Your task to perform on an android device: create a new album in the google photos Image 0: 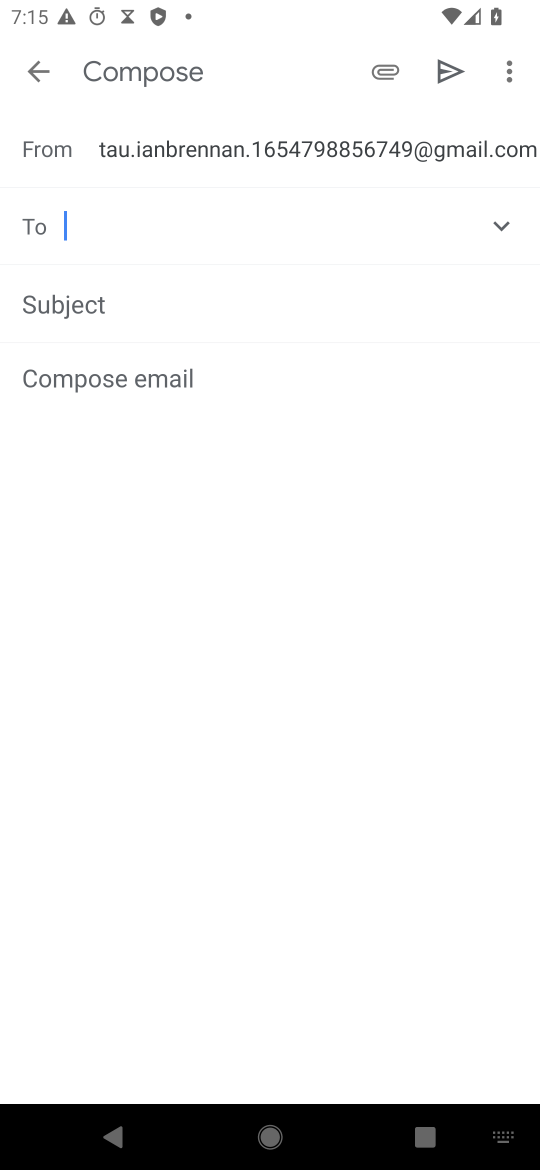
Step 0: press home button
Your task to perform on an android device: create a new album in the google photos Image 1: 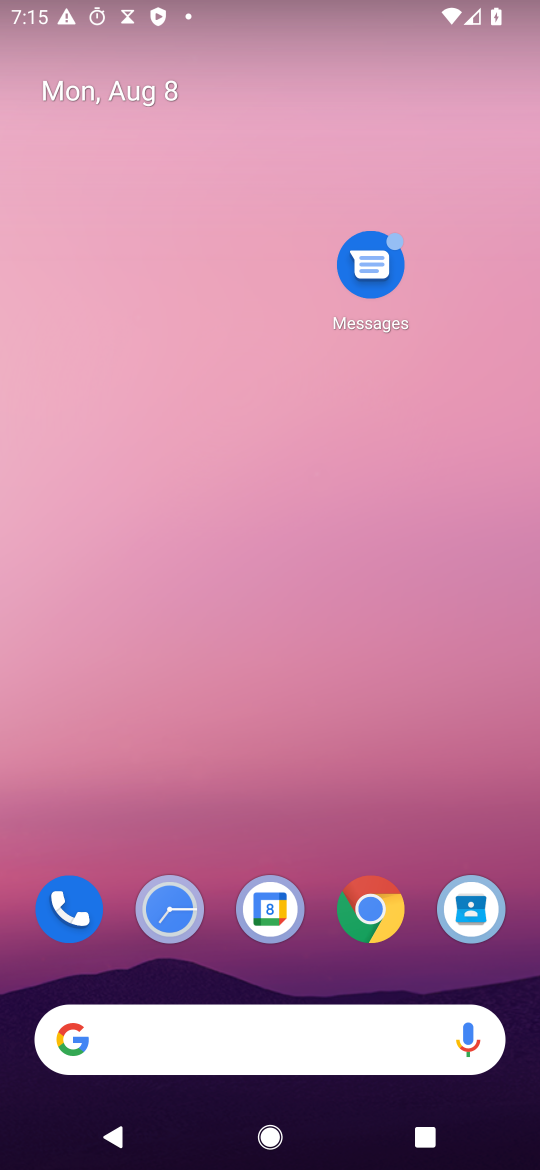
Step 1: drag from (222, 1057) to (472, 440)
Your task to perform on an android device: create a new album in the google photos Image 2: 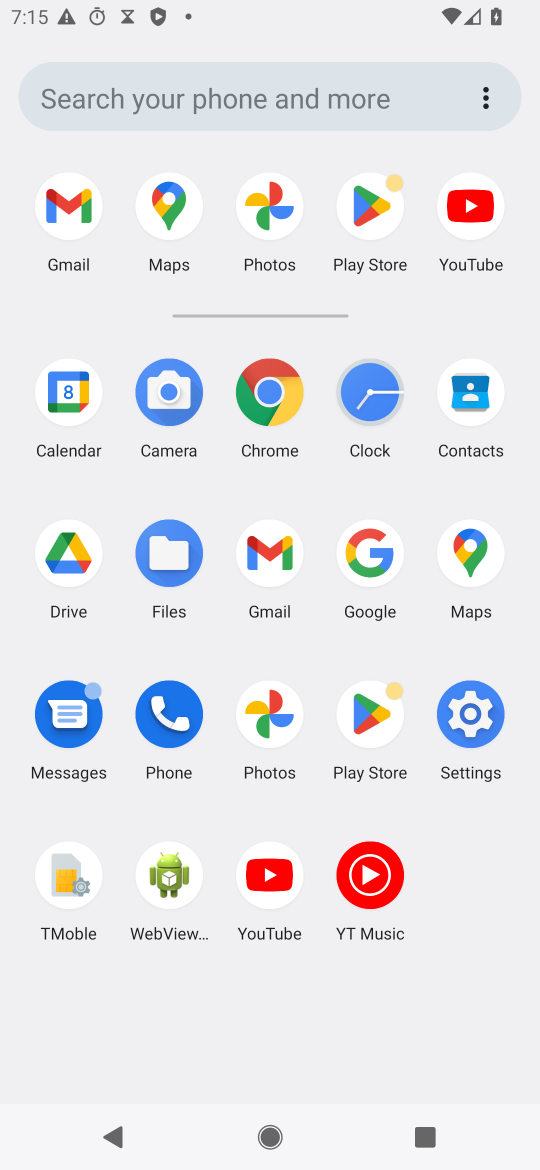
Step 2: click (265, 715)
Your task to perform on an android device: create a new album in the google photos Image 3: 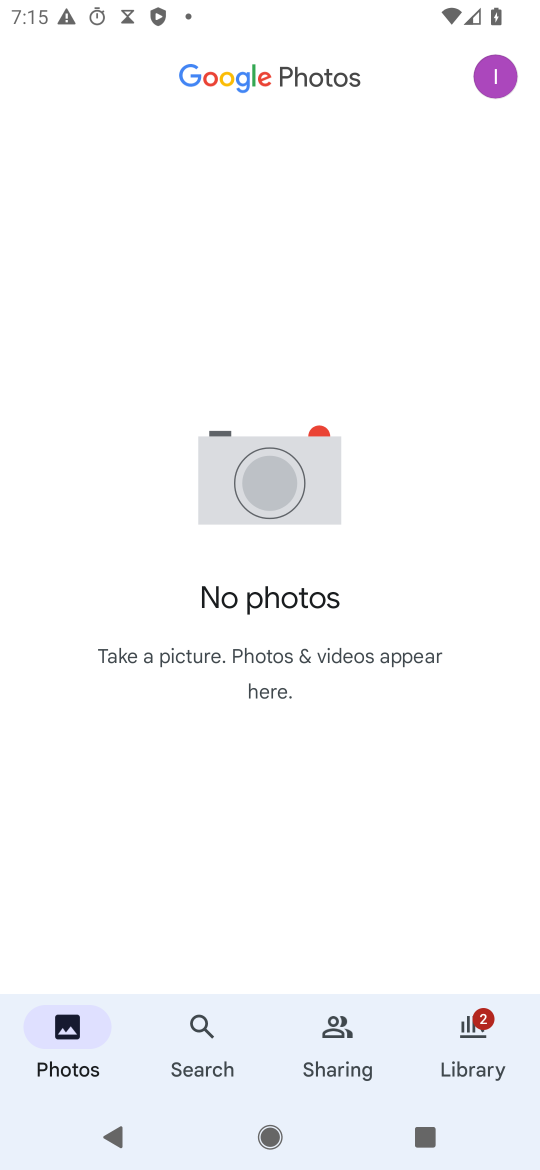
Step 3: click (471, 1055)
Your task to perform on an android device: create a new album in the google photos Image 4: 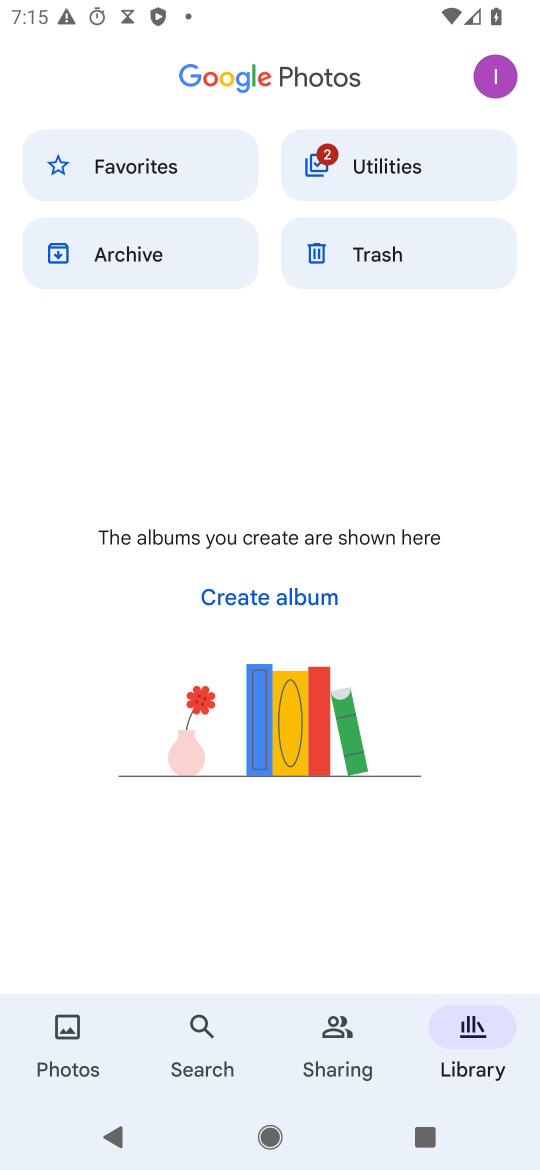
Step 4: task complete